Your task to perform on an android device: Open Google Image 0: 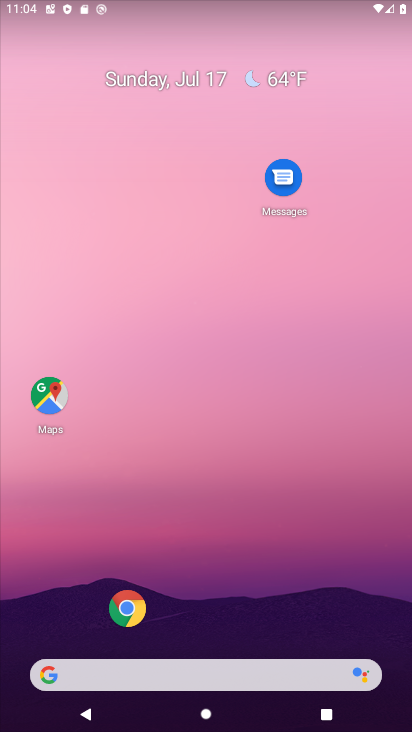
Step 0: click (73, 671)
Your task to perform on an android device: Open Google Image 1: 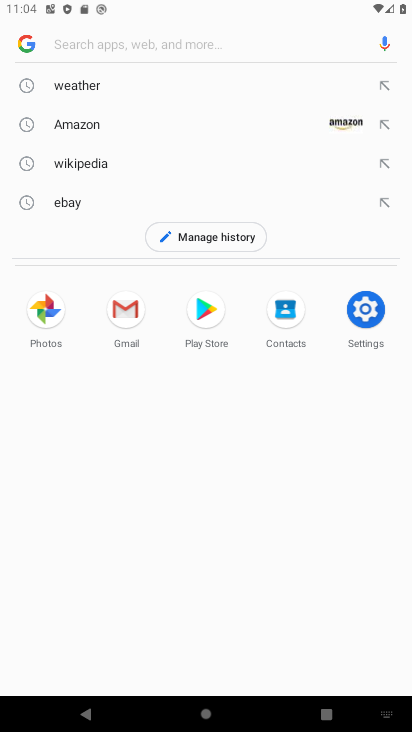
Step 1: task complete